Your task to perform on an android device: see tabs open on other devices in the chrome app Image 0: 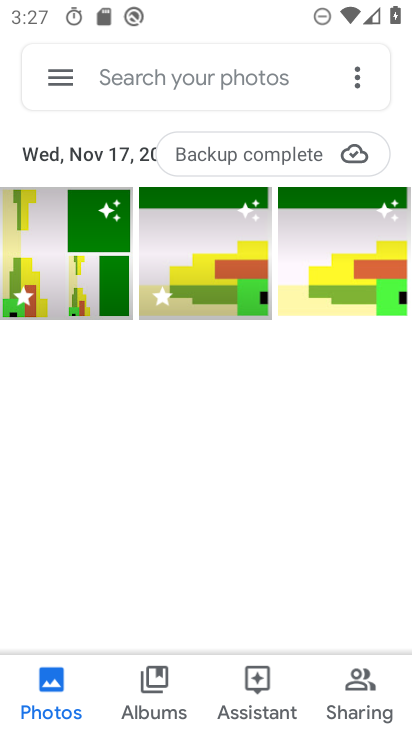
Step 0: press home button
Your task to perform on an android device: see tabs open on other devices in the chrome app Image 1: 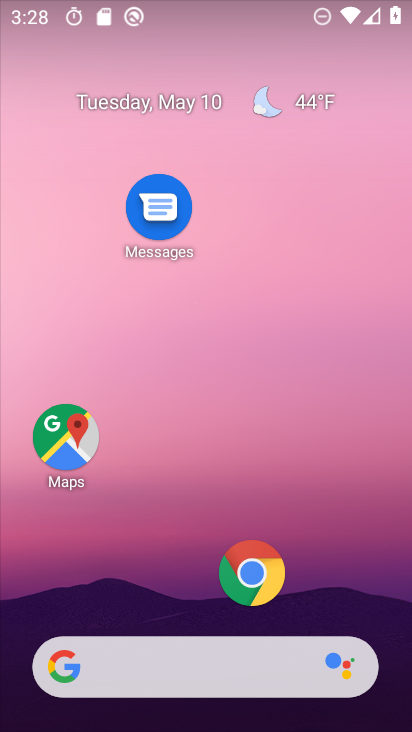
Step 1: click (255, 570)
Your task to perform on an android device: see tabs open on other devices in the chrome app Image 2: 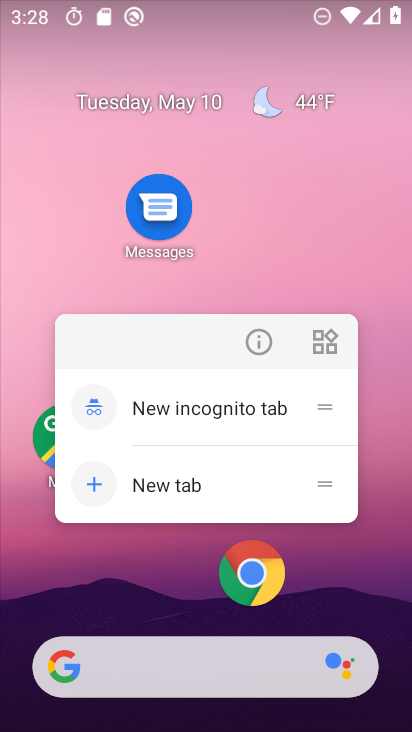
Step 2: click (236, 566)
Your task to perform on an android device: see tabs open on other devices in the chrome app Image 3: 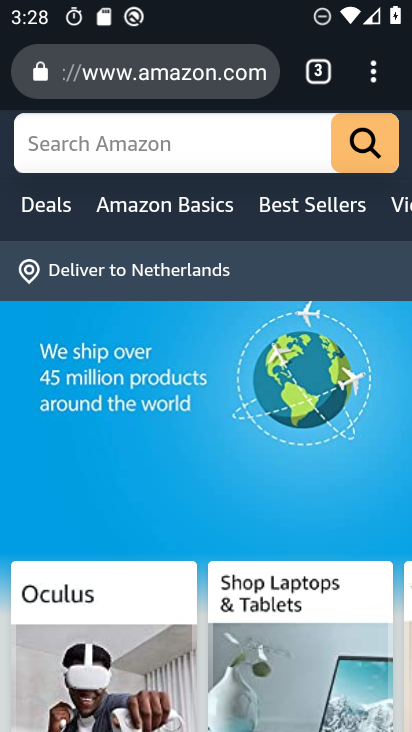
Step 3: click (379, 82)
Your task to perform on an android device: see tabs open on other devices in the chrome app Image 4: 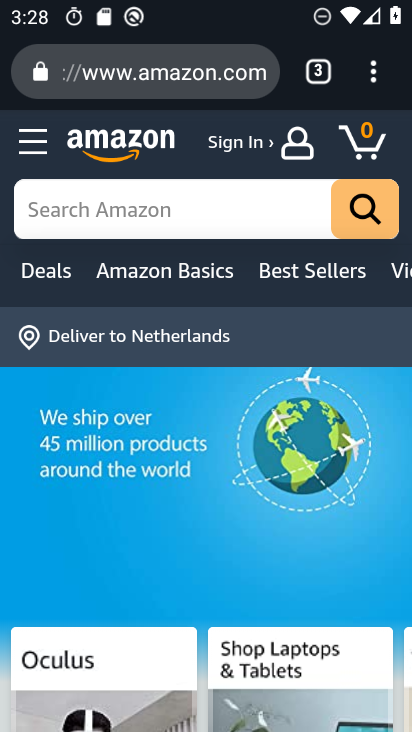
Step 4: task complete